Your task to perform on an android device: Open Google Image 0: 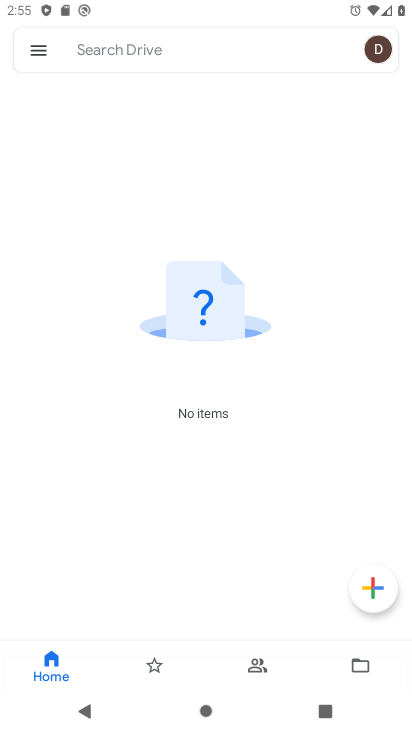
Step 0: press home button
Your task to perform on an android device: Open Google Image 1: 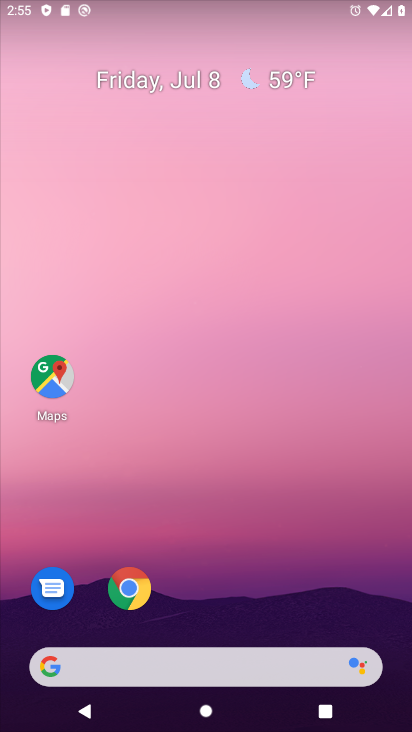
Step 1: drag from (246, 582) to (333, 43)
Your task to perform on an android device: Open Google Image 2: 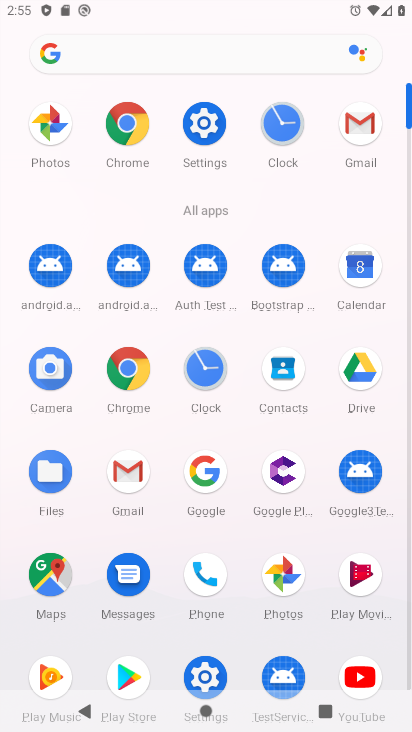
Step 2: click (128, 51)
Your task to perform on an android device: Open Google Image 3: 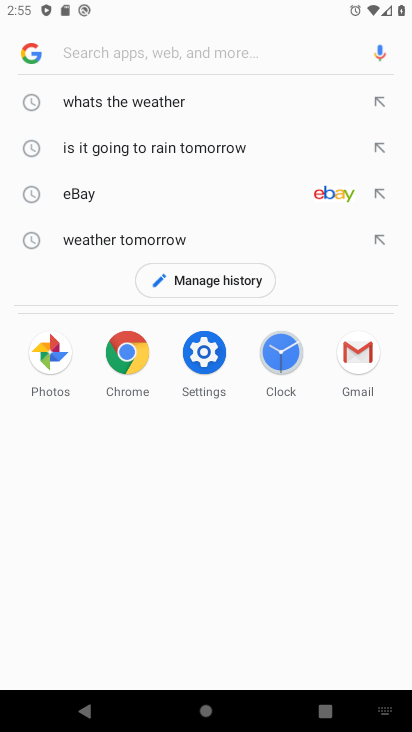
Step 3: click (33, 52)
Your task to perform on an android device: Open Google Image 4: 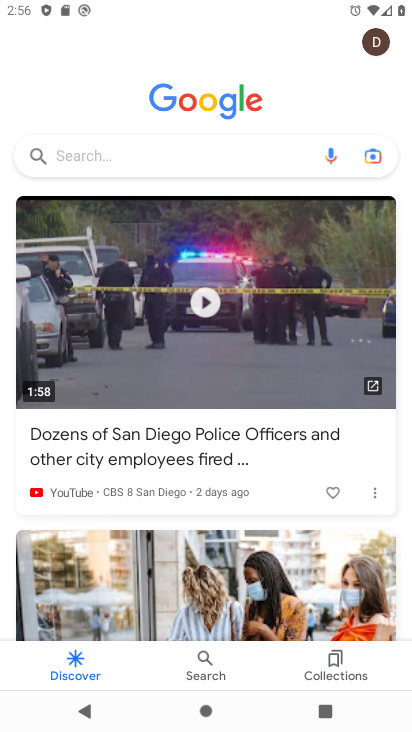
Step 4: task complete